Your task to perform on an android device: see creations saved in the google photos Image 0: 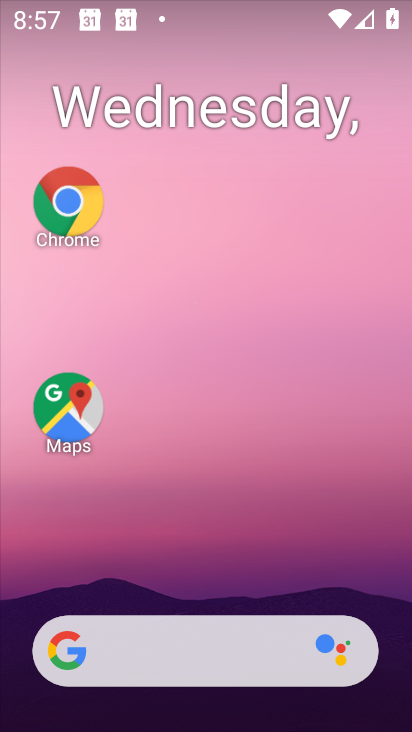
Step 0: drag from (186, 613) to (128, 30)
Your task to perform on an android device: see creations saved in the google photos Image 1: 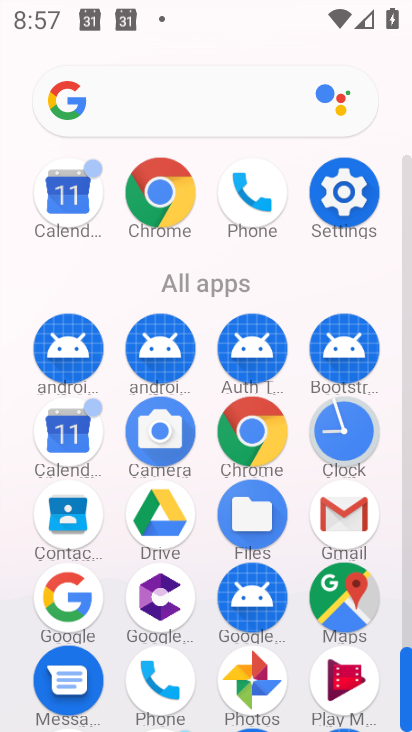
Step 1: click (251, 661)
Your task to perform on an android device: see creations saved in the google photos Image 2: 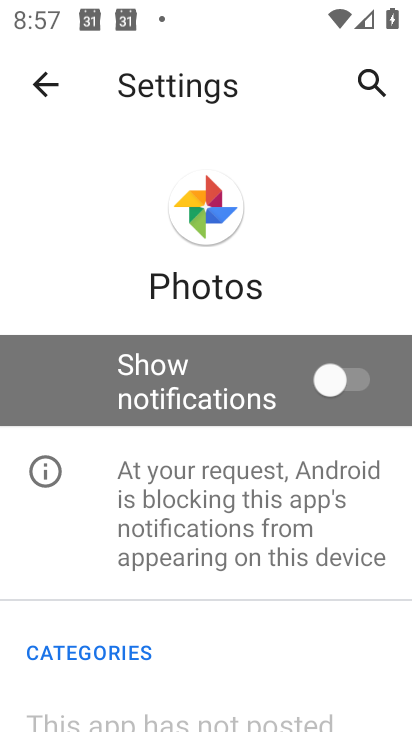
Step 2: click (57, 78)
Your task to perform on an android device: see creations saved in the google photos Image 3: 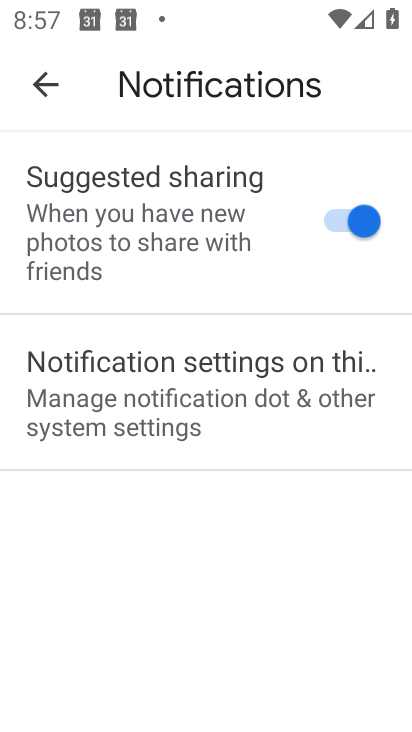
Step 3: click (57, 78)
Your task to perform on an android device: see creations saved in the google photos Image 4: 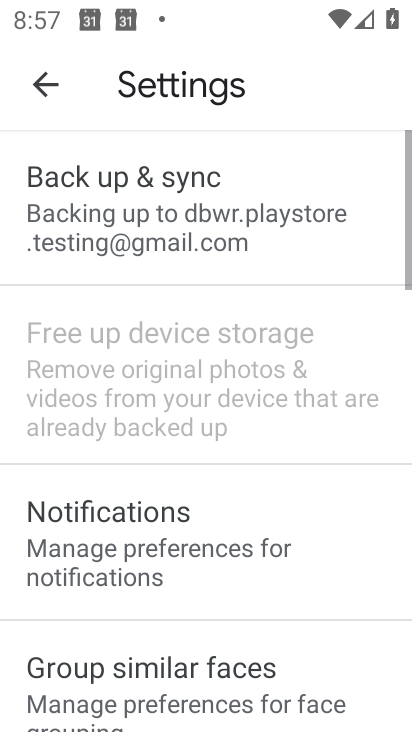
Step 4: click (57, 78)
Your task to perform on an android device: see creations saved in the google photos Image 5: 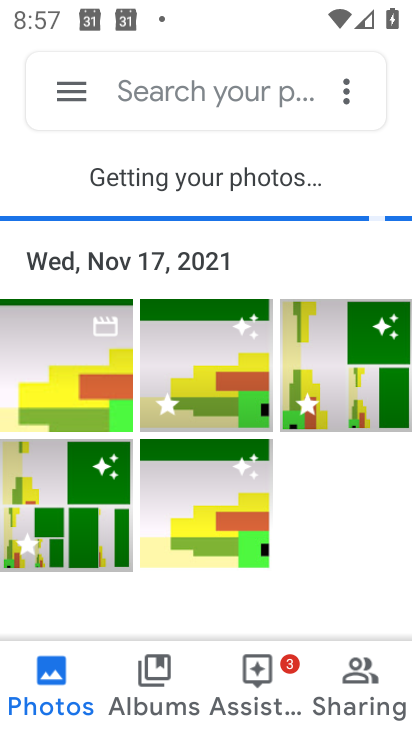
Step 5: click (138, 93)
Your task to perform on an android device: see creations saved in the google photos Image 6: 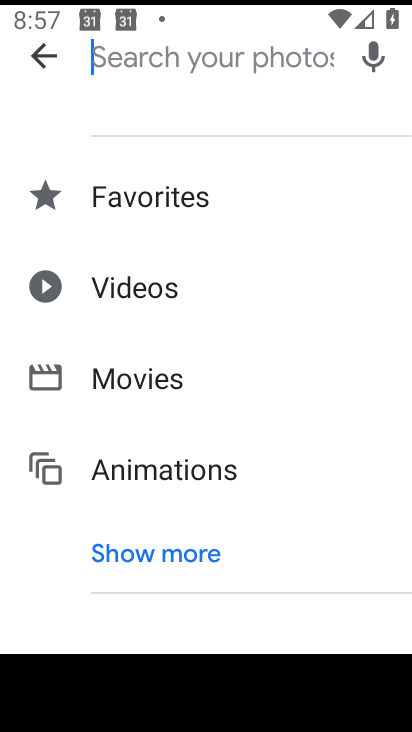
Step 6: click (105, 540)
Your task to perform on an android device: see creations saved in the google photos Image 7: 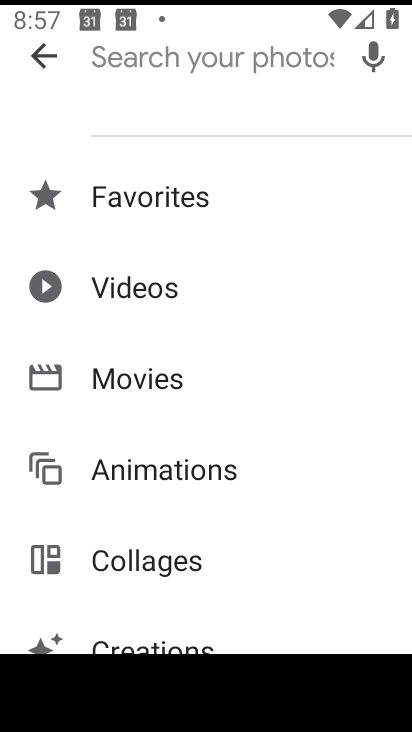
Step 7: click (67, 632)
Your task to perform on an android device: see creations saved in the google photos Image 8: 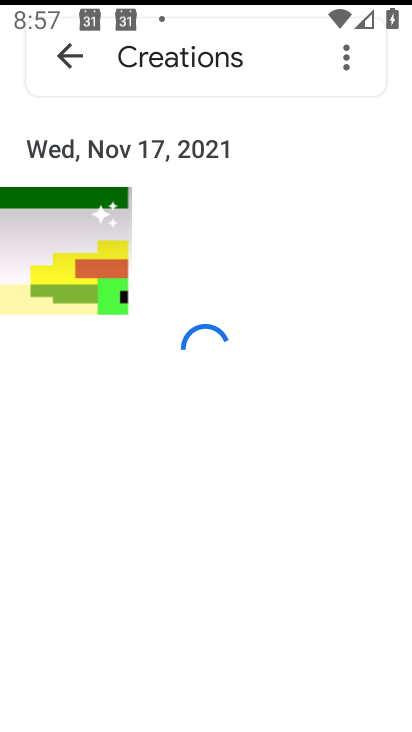
Step 8: task complete